Your task to perform on an android device: Open my contact list Image 0: 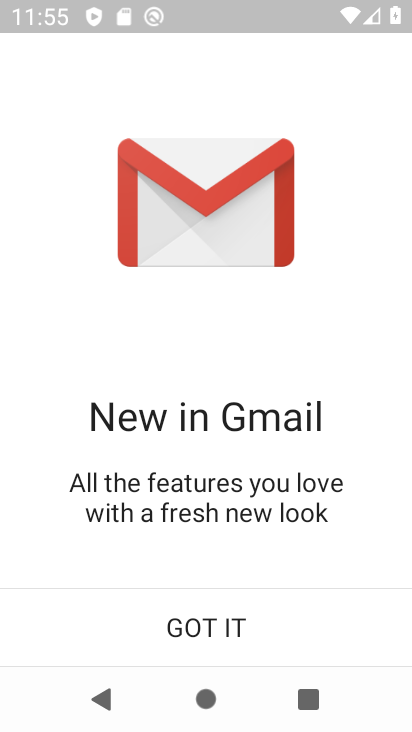
Step 0: press home button
Your task to perform on an android device: Open my contact list Image 1: 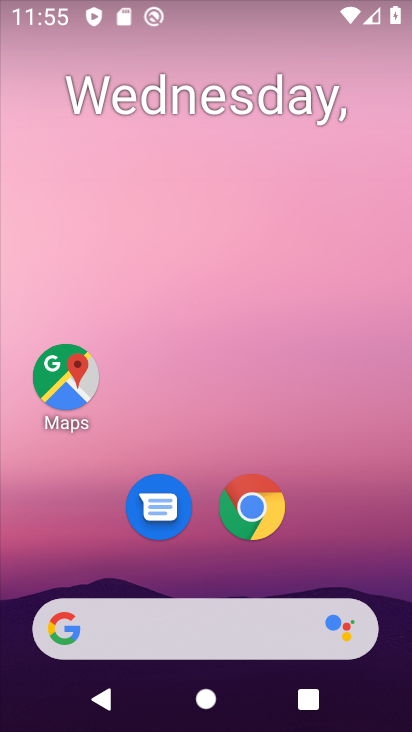
Step 1: drag from (197, 577) to (273, 230)
Your task to perform on an android device: Open my contact list Image 2: 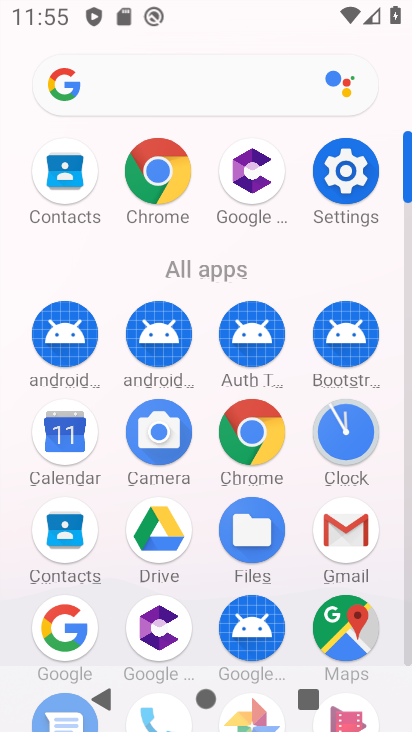
Step 2: click (50, 520)
Your task to perform on an android device: Open my contact list Image 3: 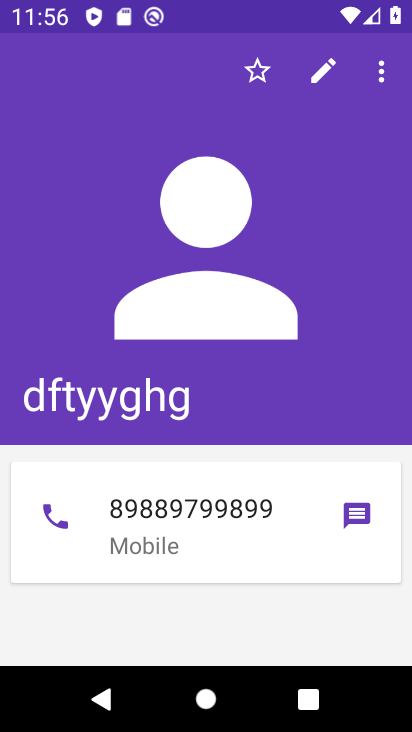
Step 3: task complete